Your task to perform on an android device: Clear the cart on walmart. Image 0: 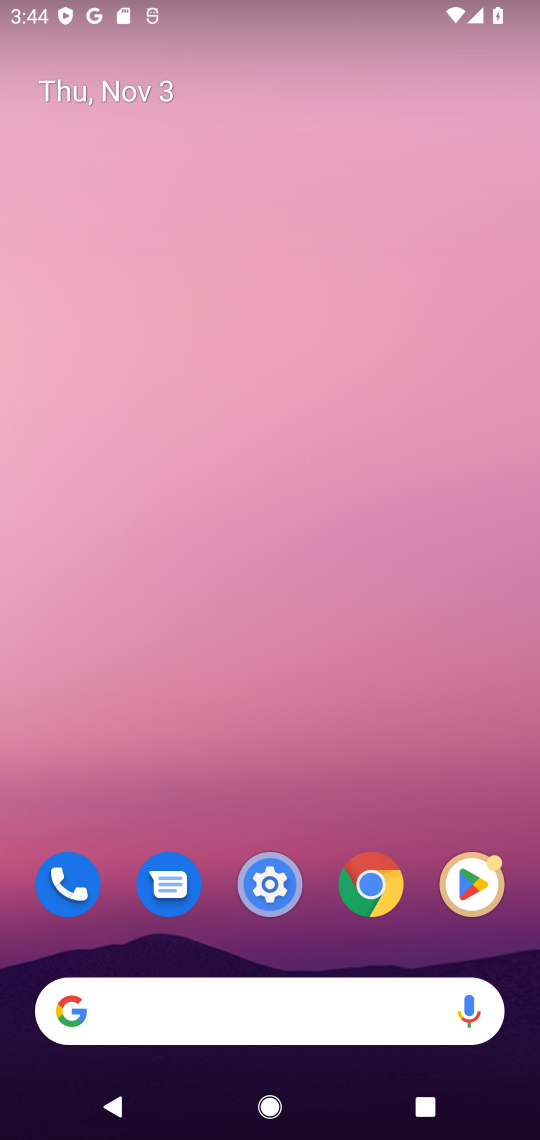
Step 0: press home button
Your task to perform on an android device: Clear the cart on walmart. Image 1: 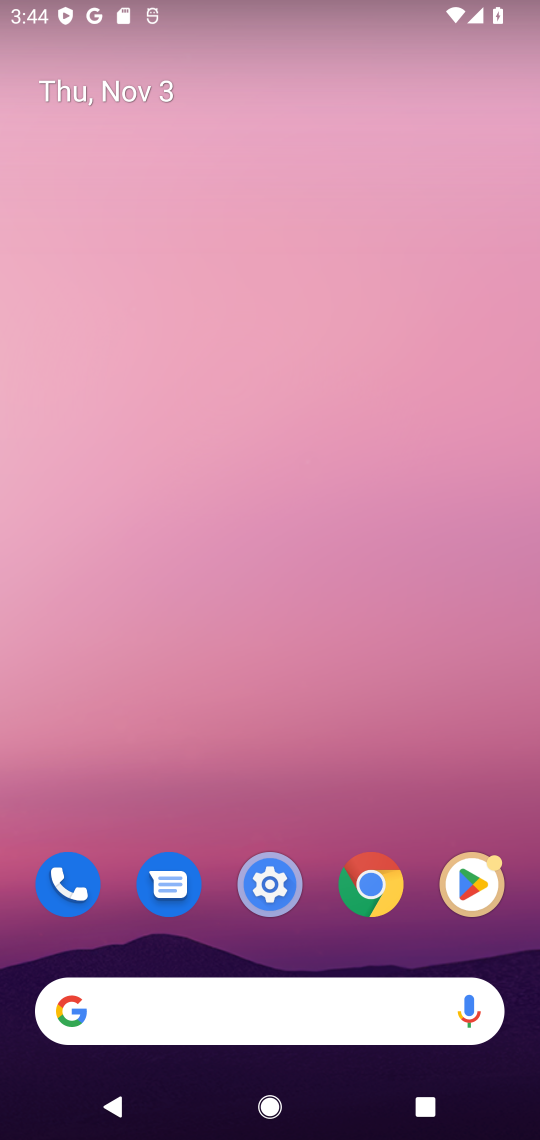
Step 1: click (104, 1007)
Your task to perform on an android device: Clear the cart on walmart. Image 2: 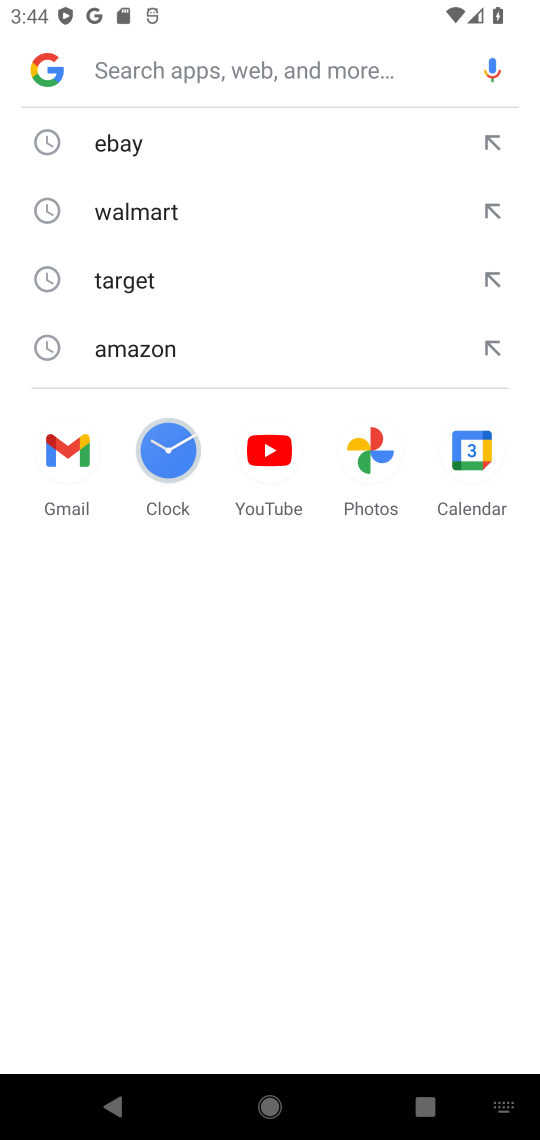
Step 2: type "walmart"
Your task to perform on an android device: Clear the cart on walmart. Image 3: 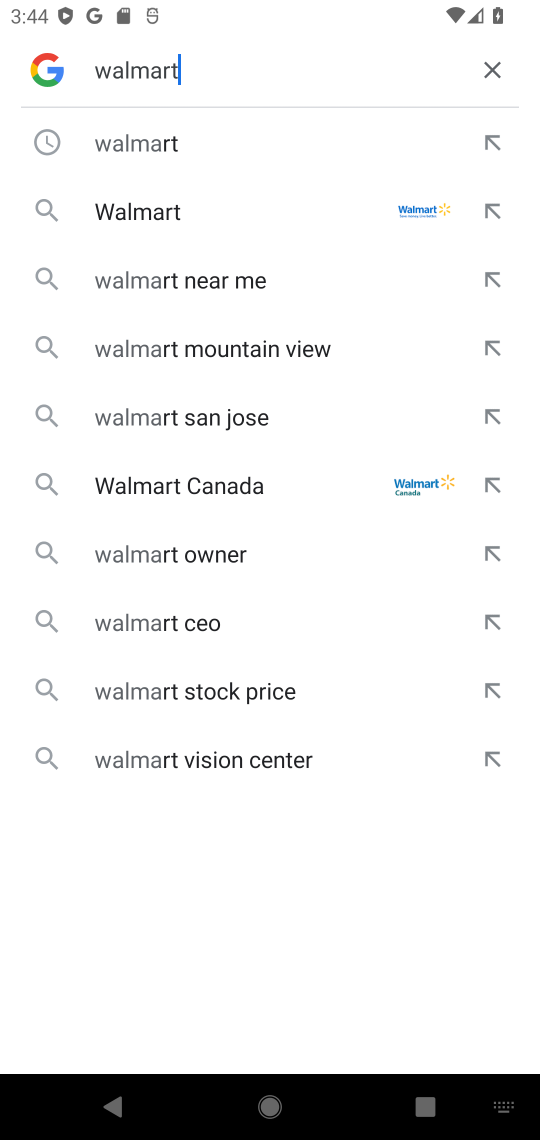
Step 3: press enter
Your task to perform on an android device: Clear the cart on walmart. Image 4: 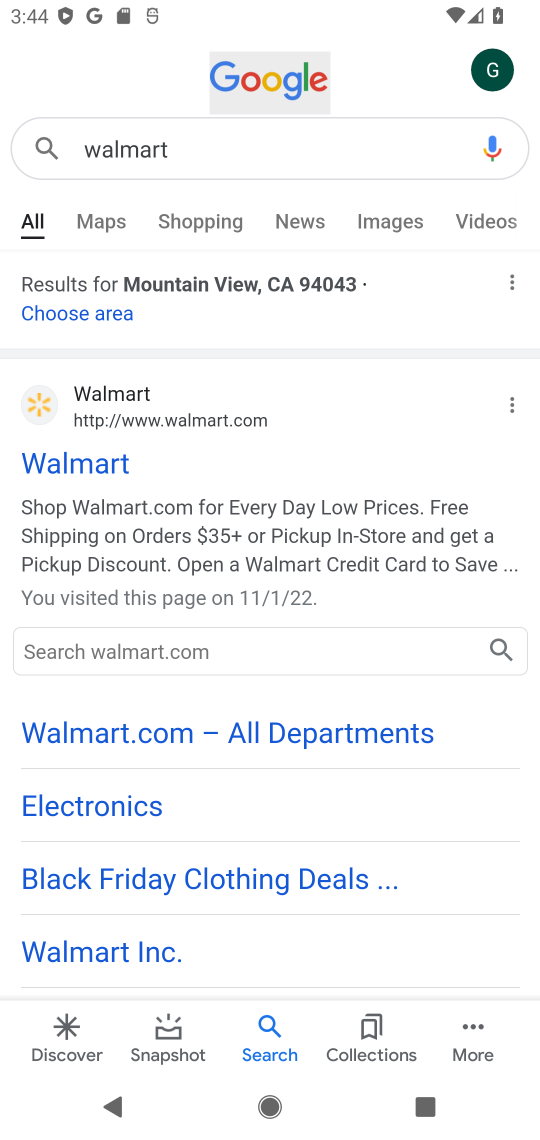
Step 4: click (79, 475)
Your task to perform on an android device: Clear the cart on walmart. Image 5: 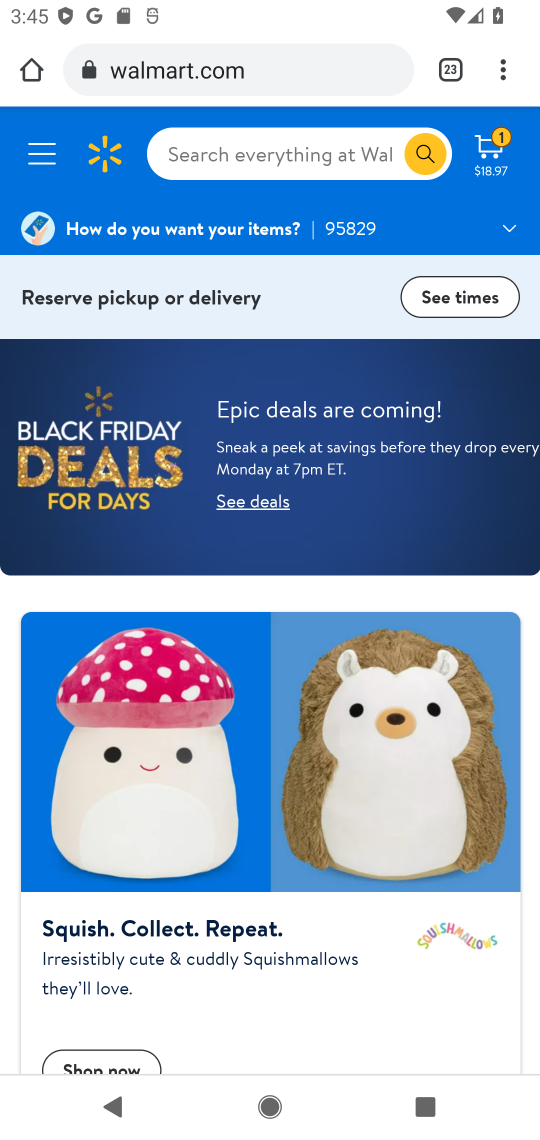
Step 5: click (487, 152)
Your task to perform on an android device: Clear the cart on walmart. Image 6: 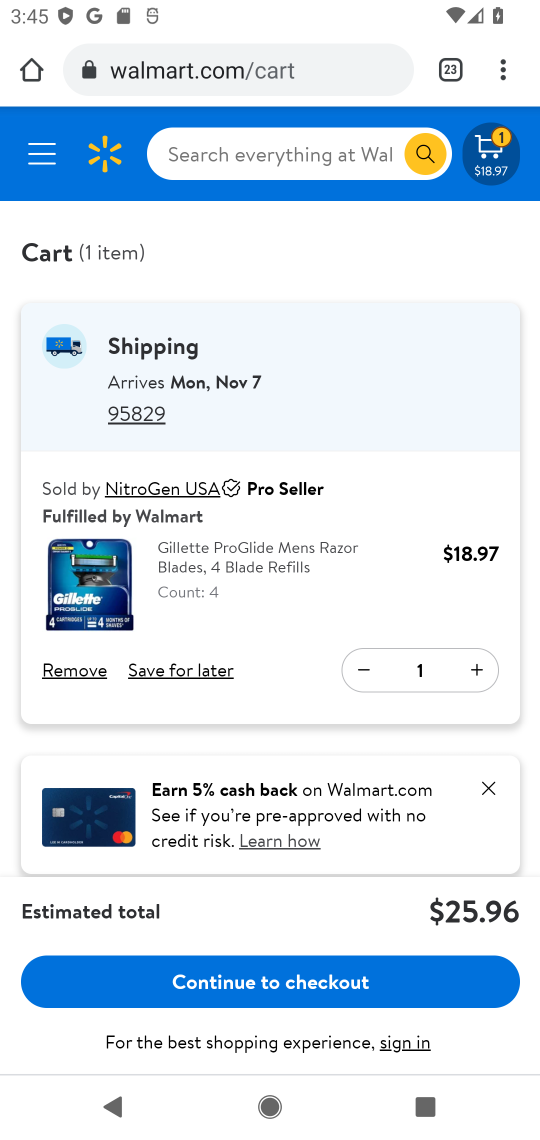
Step 6: click (69, 671)
Your task to perform on an android device: Clear the cart on walmart. Image 7: 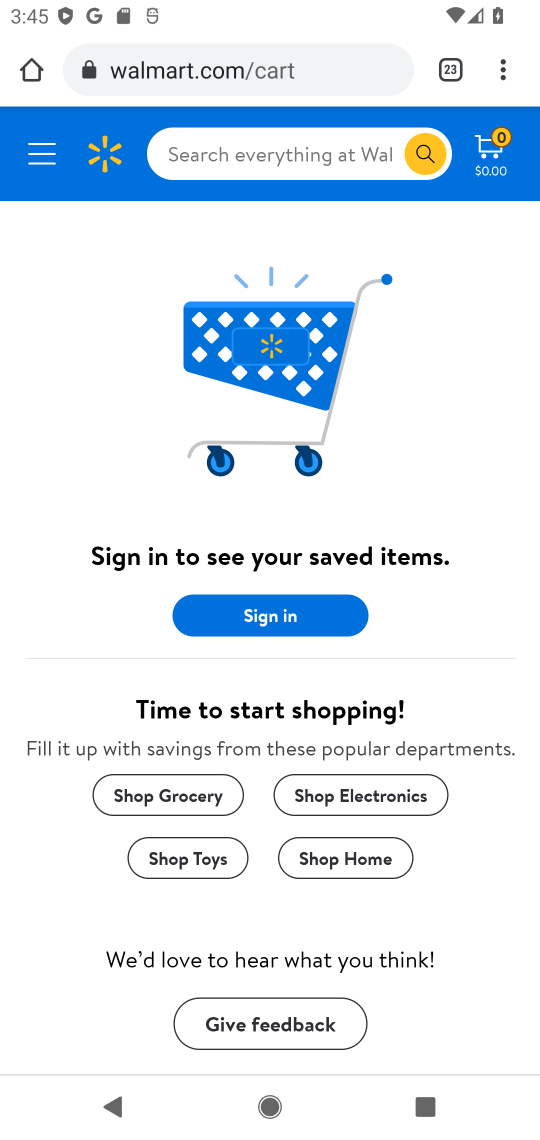
Step 7: task complete